Your task to perform on an android device: Show me the alarms in the clock app Image 0: 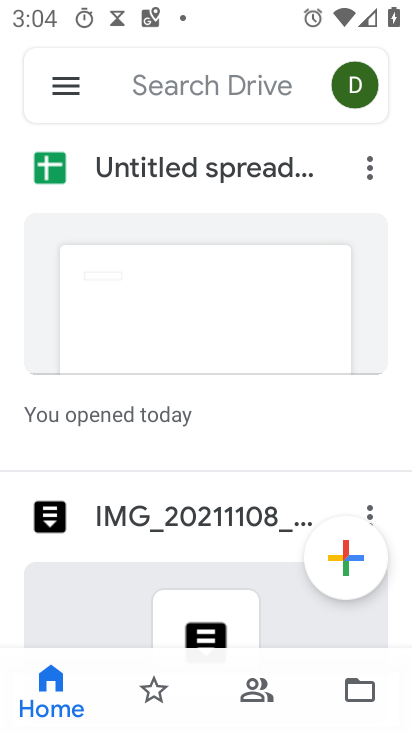
Step 0: press back button
Your task to perform on an android device: Show me the alarms in the clock app Image 1: 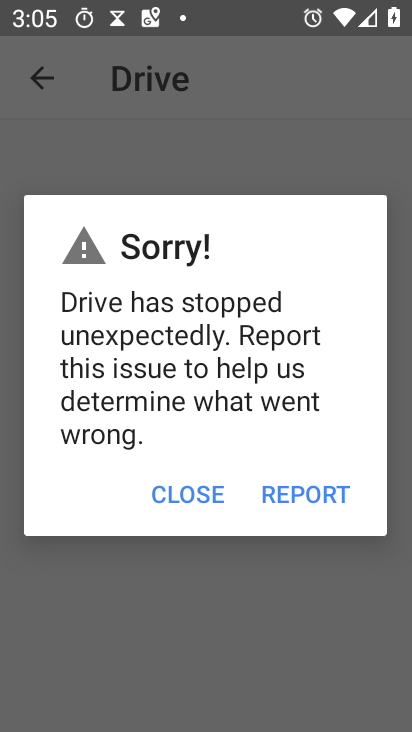
Step 1: press back button
Your task to perform on an android device: Show me the alarms in the clock app Image 2: 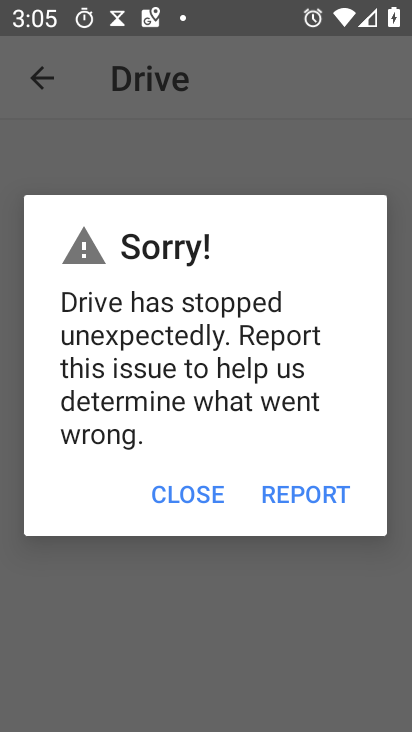
Step 2: press home button
Your task to perform on an android device: Show me the alarms in the clock app Image 3: 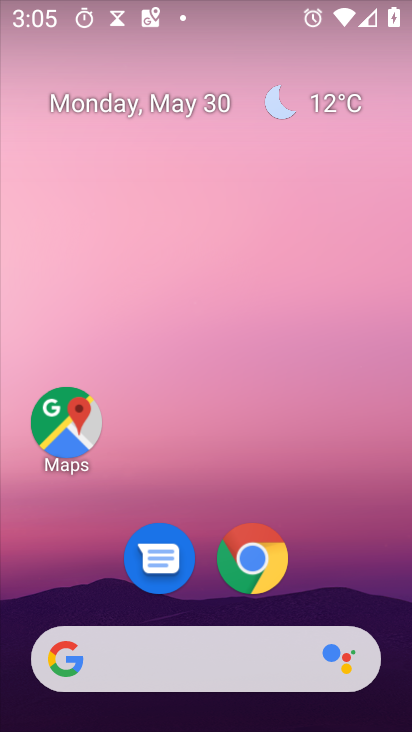
Step 3: drag from (192, 581) to (251, 47)
Your task to perform on an android device: Show me the alarms in the clock app Image 4: 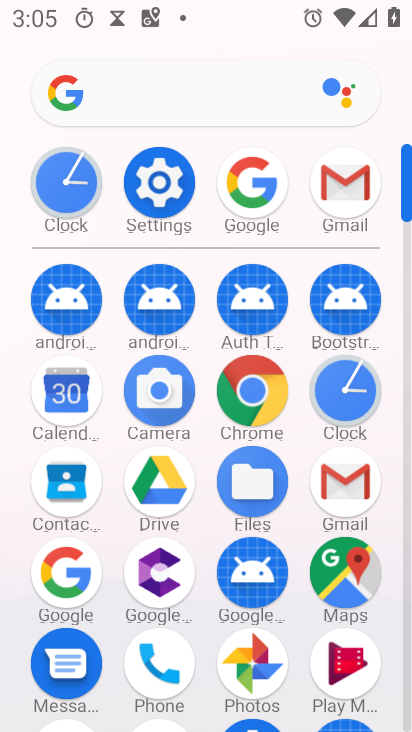
Step 4: click (347, 391)
Your task to perform on an android device: Show me the alarms in the clock app Image 5: 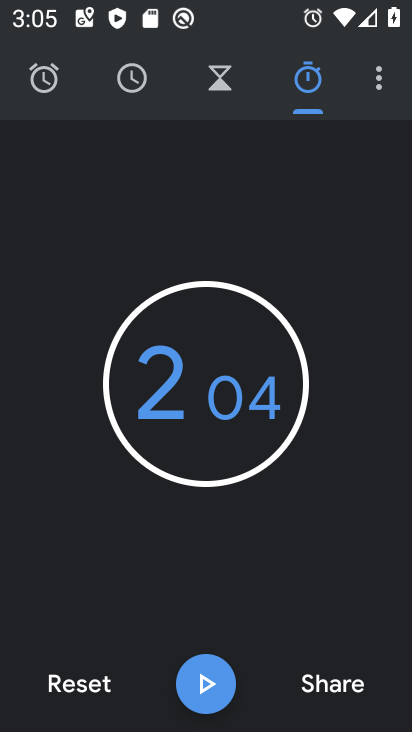
Step 5: click (67, 84)
Your task to perform on an android device: Show me the alarms in the clock app Image 6: 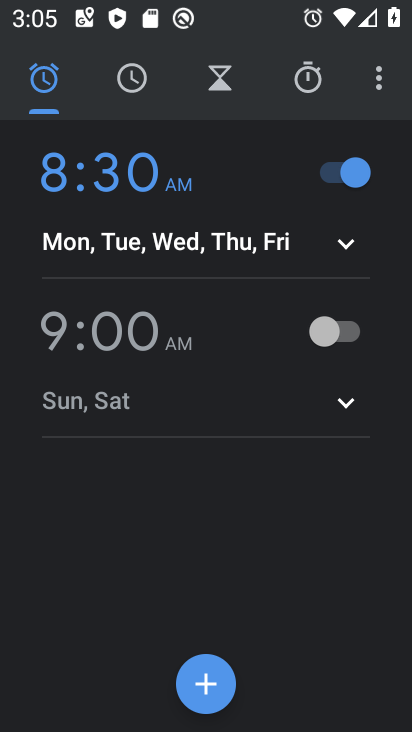
Step 6: task complete